Your task to perform on an android device: toggle location history Image 0: 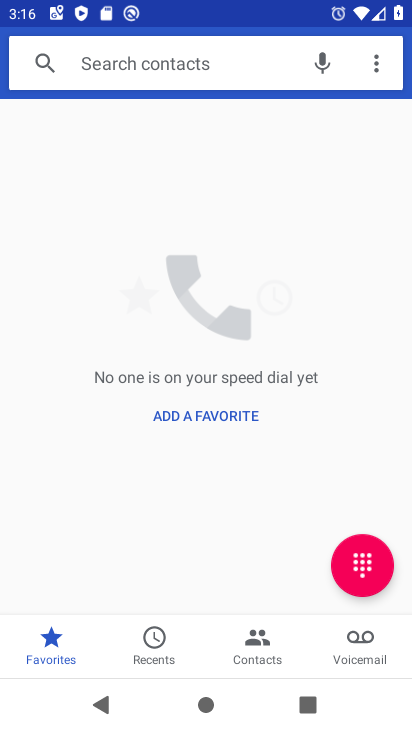
Step 0: press home button
Your task to perform on an android device: toggle location history Image 1: 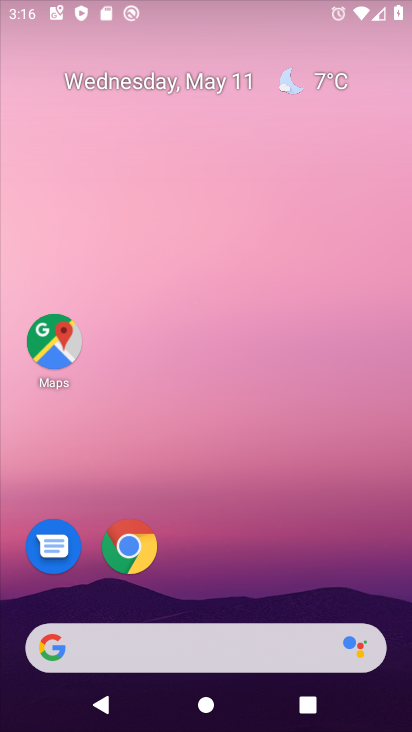
Step 1: drag from (289, 654) to (302, 110)
Your task to perform on an android device: toggle location history Image 2: 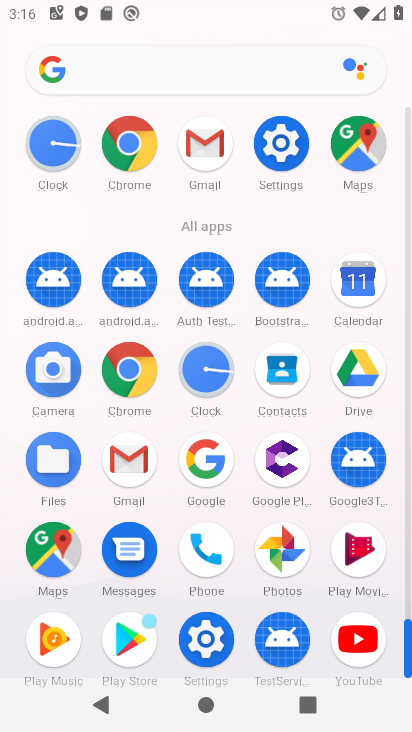
Step 2: click (286, 145)
Your task to perform on an android device: toggle location history Image 3: 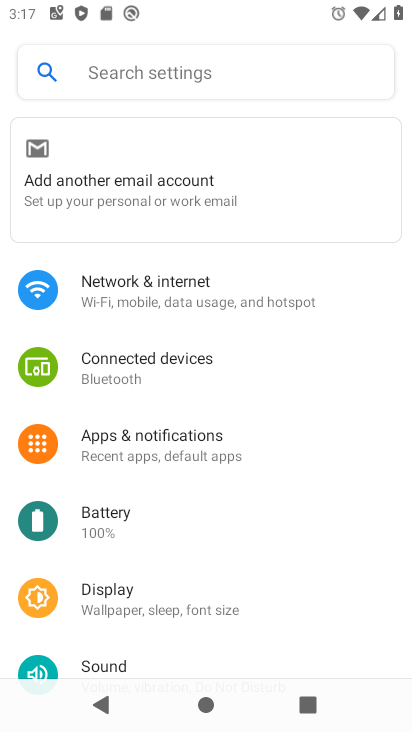
Step 3: drag from (298, 625) to (335, 4)
Your task to perform on an android device: toggle location history Image 4: 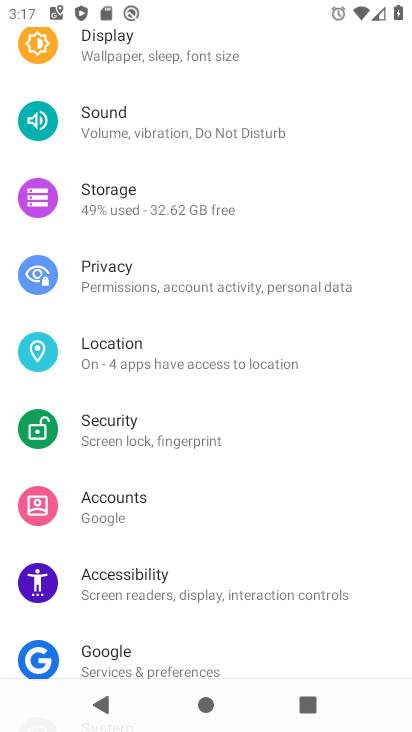
Step 4: click (154, 357)
Your task to perform on an android device: toggle location history Image 5: 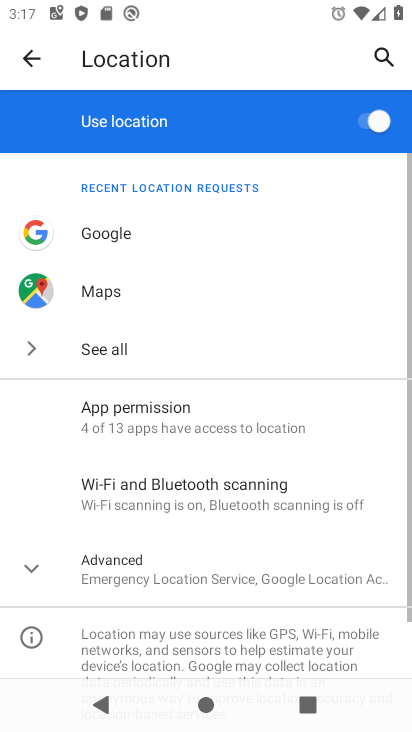
Step 5: click (129, 569)
Your task to perform on an android device: toggle location history Image 6: 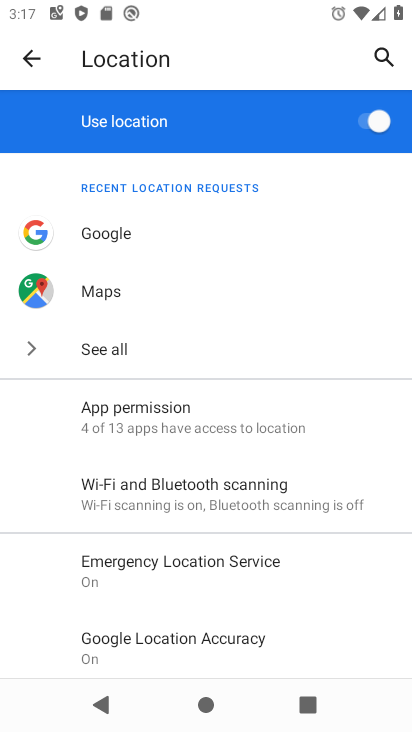
Step 6: drag from (205, 653) to (221, 179)
Your task to perform on an android device: toggle location history Image 7: 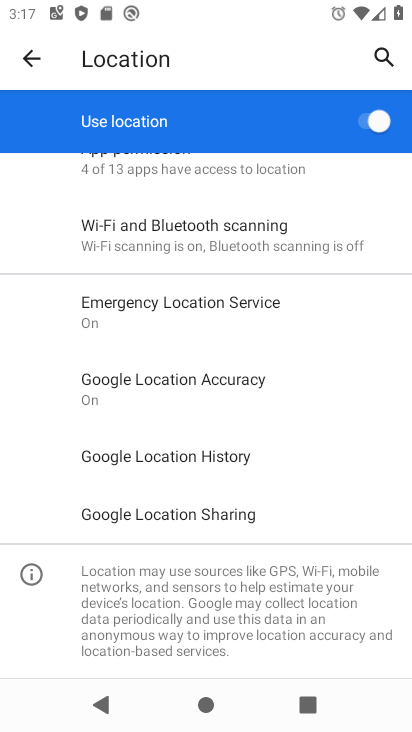
Step 7: click (179, 455)
Your task to perform on an android device: toggle location history Image 8: 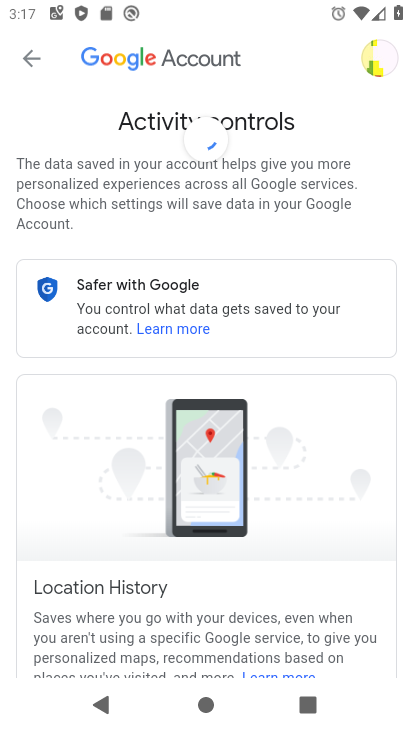
Step 8: drag from (333, 631) to (325, 0)
Your task to perform on an android device: toggle location history Image 9: 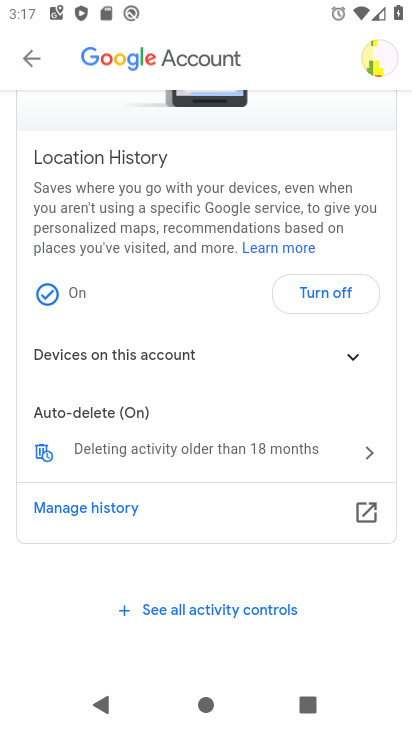
Step 9: click (337, 290)
Your task to perform on an android device: toggle location history Image 10: 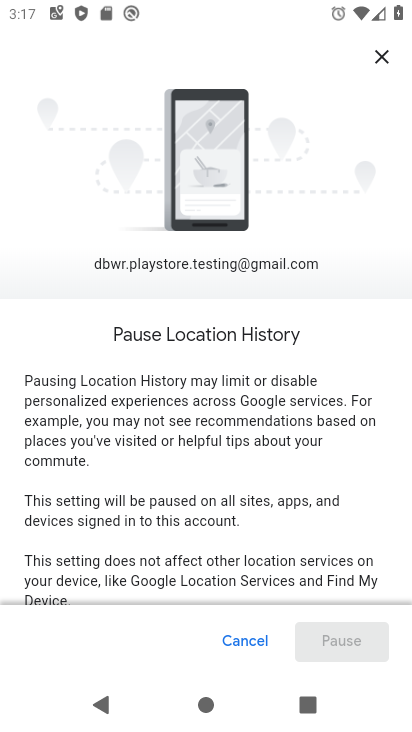
Step 10: drag from (306, 575) to (407, 551)
Your task to perform on an android device: toggle location history Image 11: 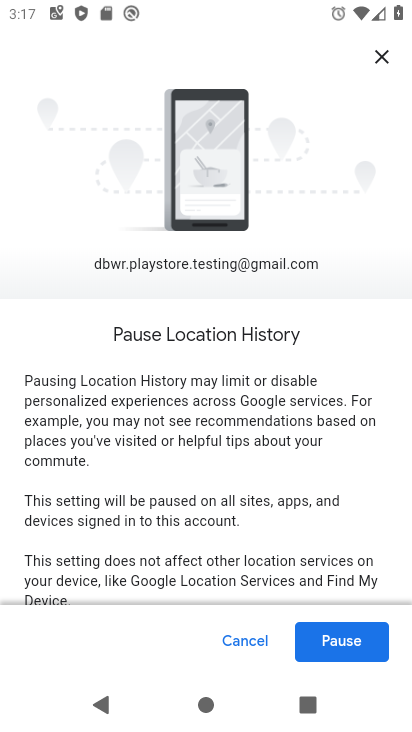
Step 11: click (356, 634)
Your task to perform on an android device: toggle location history Image 12: 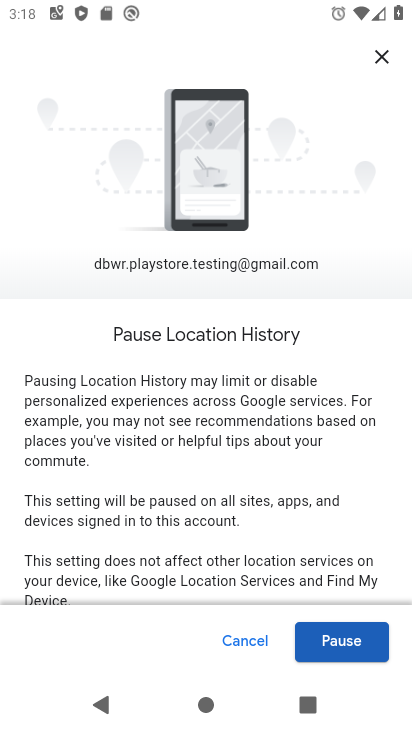
Step 12: click (356, 651)
Your task to perform on an android device: toggle location history Image 13: 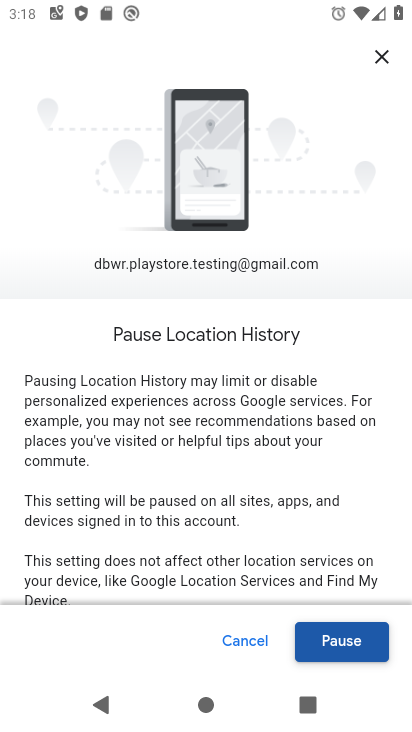
Step 13: click (356, 651)
Your task to perform on an android device: toggle location history Image 14: 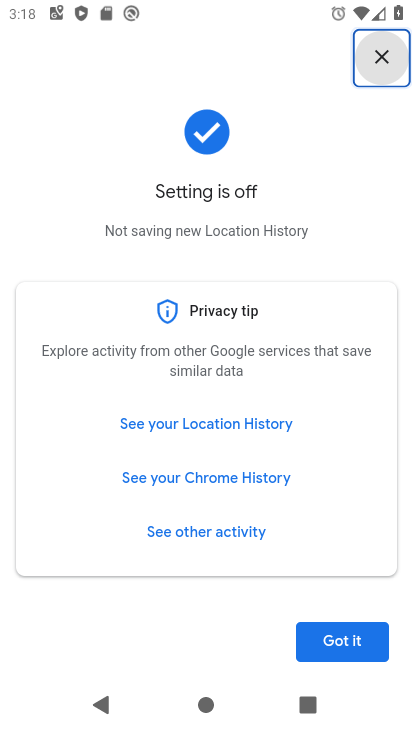
Step 14: task complete